Your task to perform on an android device: change alarm snooze length Image 0: 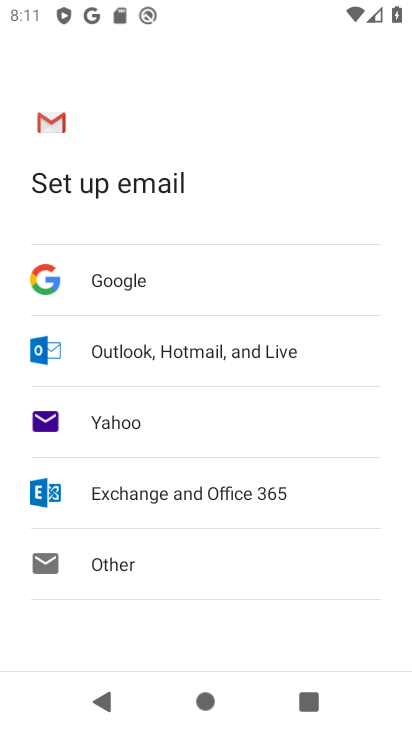
Step 0: press home button
Your task to perform on an android device: change alarm snooze length Image 1: 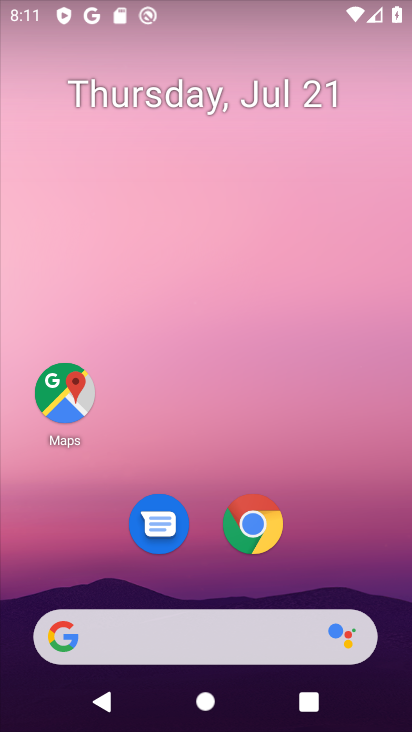
Step 1: drag from (188, 640) to (328, 167)
Your task to perform on an android device: change alarm snooze length Image 2: 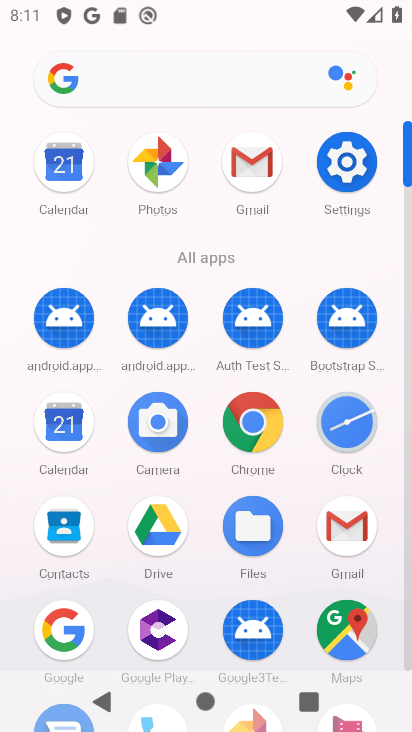
Step 2: click (348, 413)
Your task to perform on an android device: change alarm snooze length Image 3: 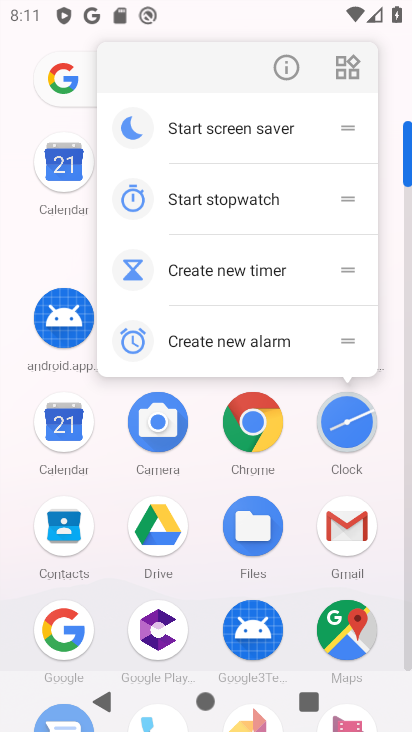
Step 3: click (340, 433)
Your task to perform on an android device: change alarm snooze length Image 4: 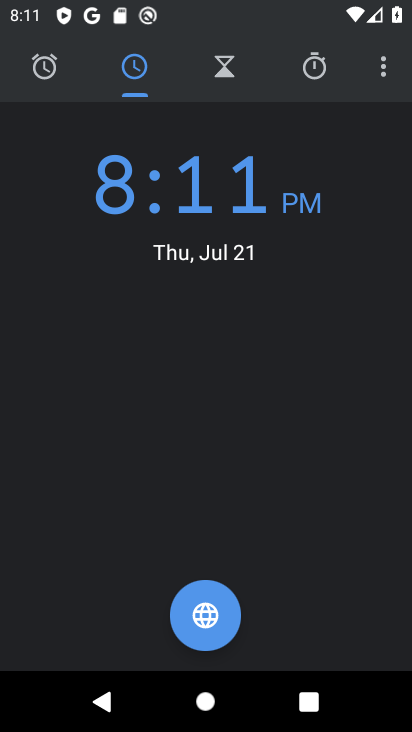
Step 4: click (381, 72)
Your task to perform on an android device: change alarm snooze length Image 5: 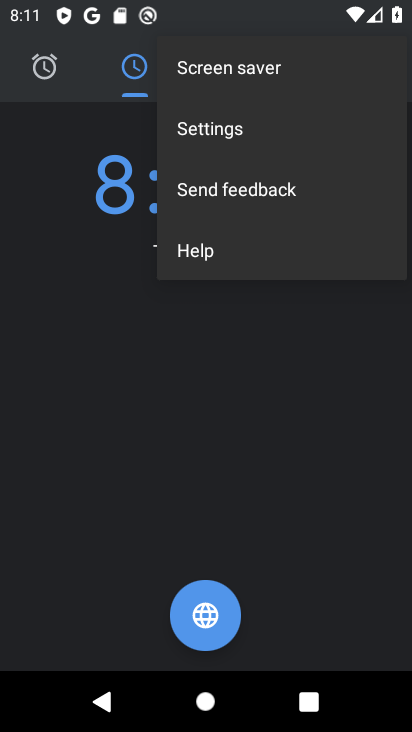
Step 5: click (213, 138)
Your task to perform on an android device: change alarm snooze length Image 6: 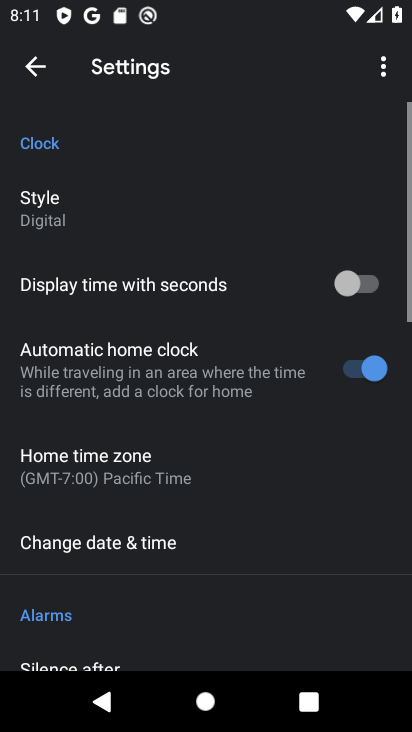
Step 6: drag from (213, 511) to (327, 76)
Your task to perform on an android device: change alarm snooze length Image 7: 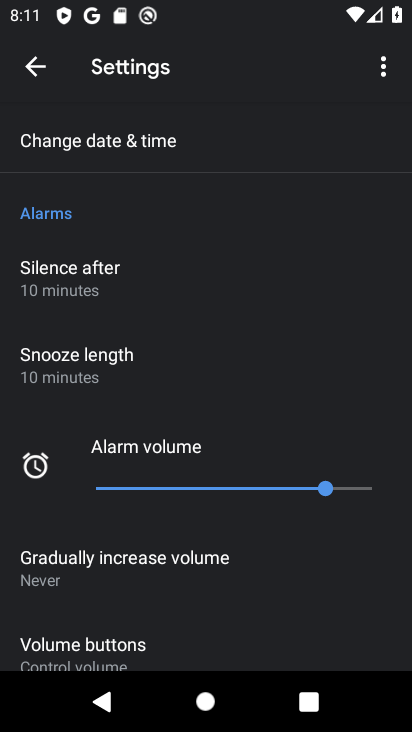
Step 7: click (113, 364)
Your task to perform on an android device: change alarm snooze length Image 8: 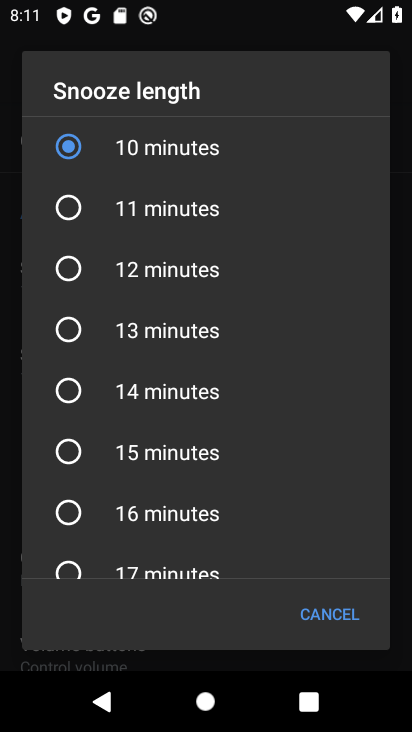
Step 8: click (71, 452)
Your task to perform on an android device: change alarm snooze length Image 9: 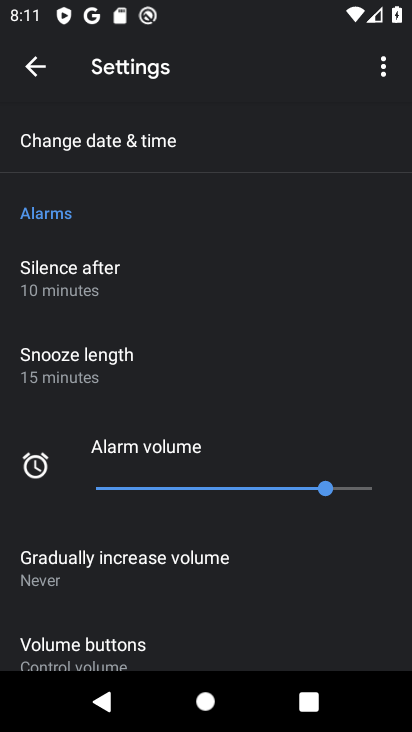
Step 9: task complete